Your task to perform on an android device: open wifi settings Image 0: 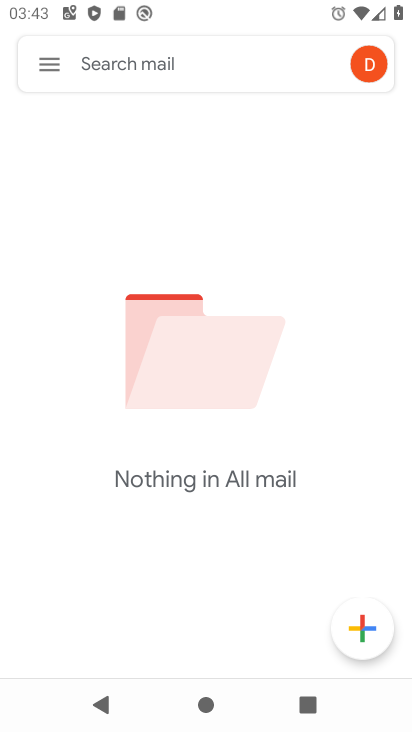
Step 0: press home button
Your task to perform on an android device: open wifi settings Image 1: 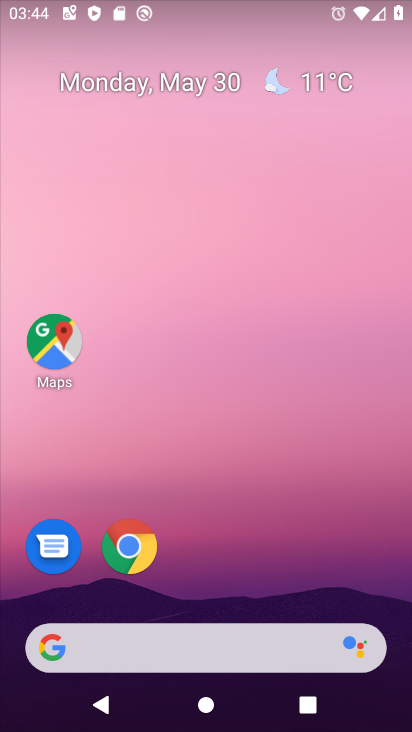
Step 1: drag from (213, 550) to (234, 153)
Your task to perform on an android device: open wifi settings Image 2: 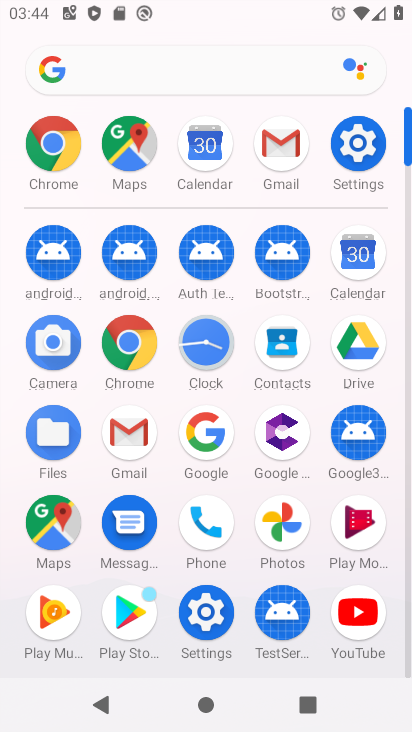
Step 2: click (357, 137)
Your task to perform on an android device: open wifi settings Image 3: 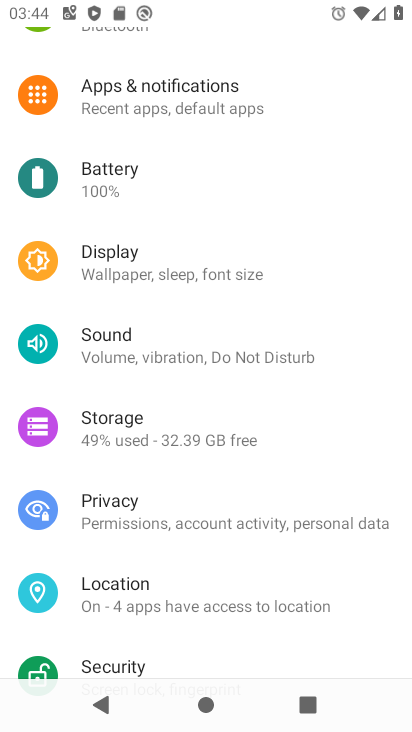
Step 3: drag from (175, 137) to (189, 673)
Your task to perform on an android device: open wifi settings Image 4: 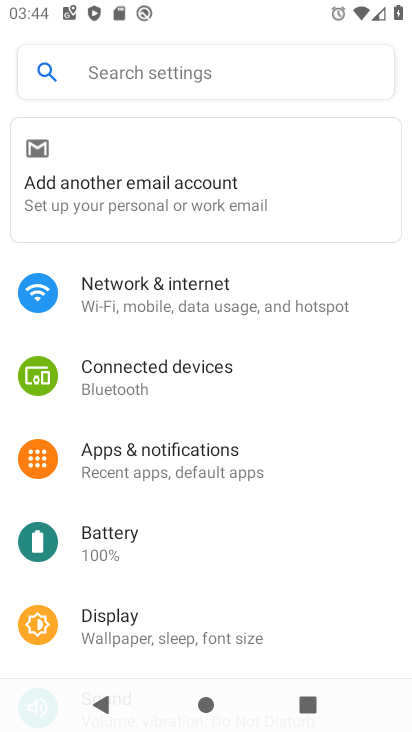
Step 4: click (239, 285)
Your task to perform on an android device: open wifi settings Image 5: 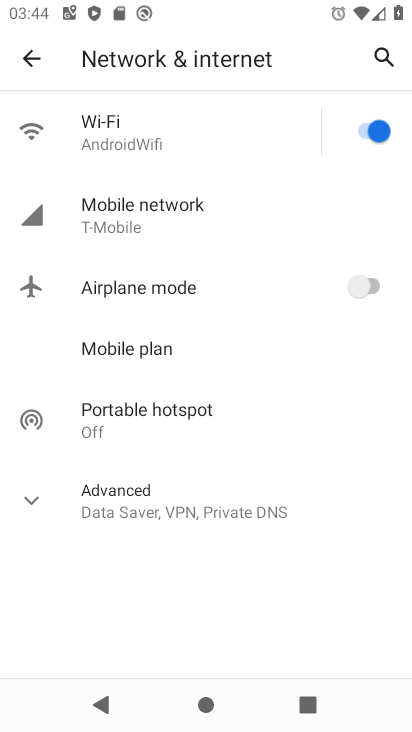
Step 5: click (228, 123)
Your task to perform on an android device: open wifi settings Image 6: 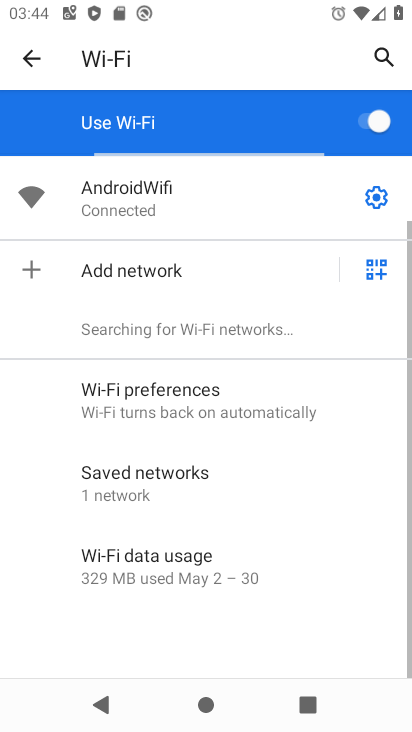
Step 6: task complete